Your task to perform on an android device: Go to sound settings Image 0: 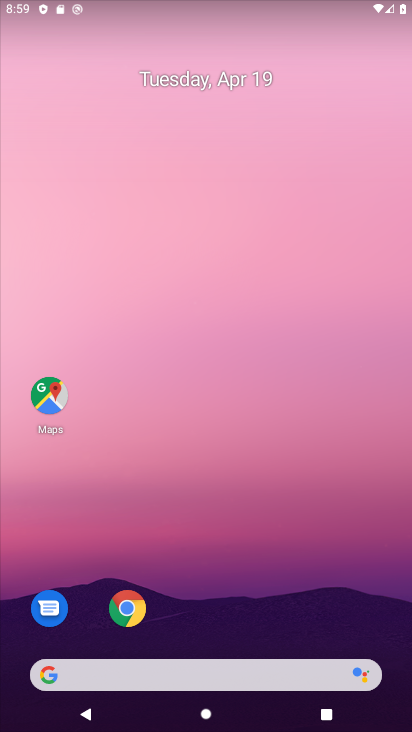
Step 0: drag from (171, 658) to (329, 46)
Your task to perform on an android device: Go to sound settings Image 1: 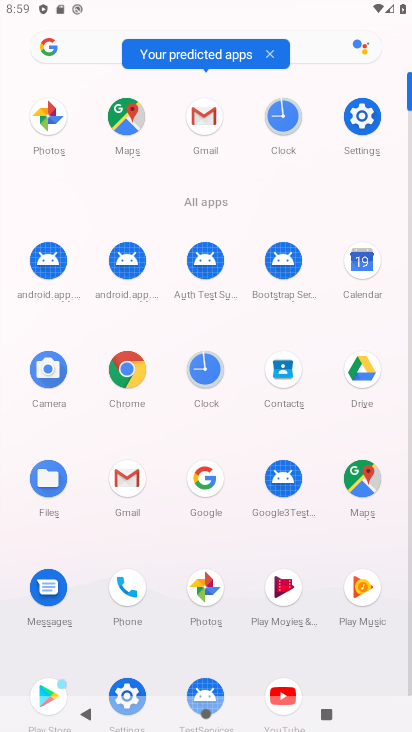
Step 1: click (364, 118)
Your task to perform on an android device: Go to sound settings Image 2: 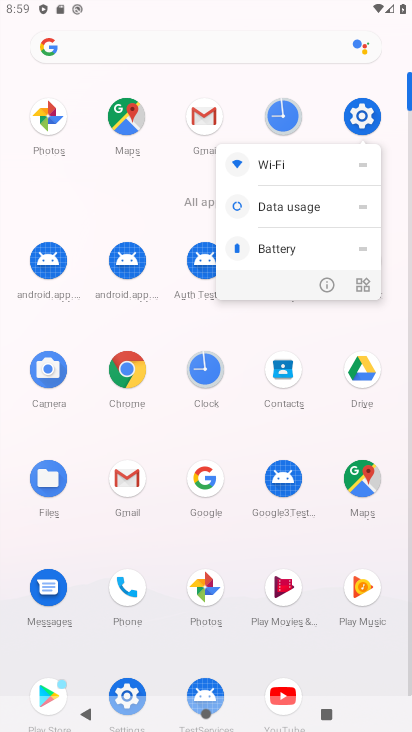
Step 2: click (362, 121)
Your task to perform on an android device: Go to sound settings Image 3: 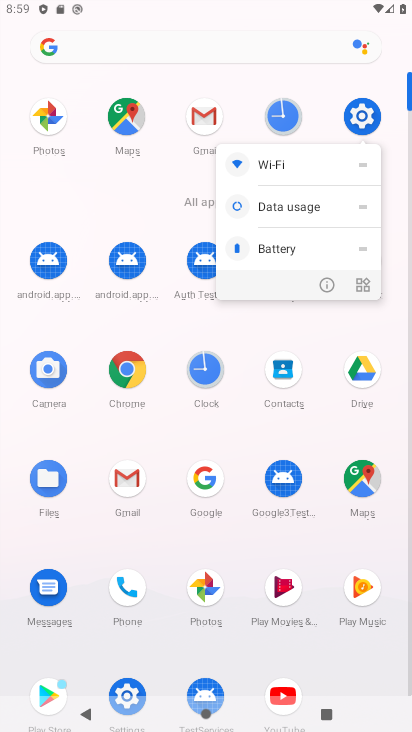
Step 3: click (354, 103)
Your task to perform on an android device: Go to sound settings Image 4: 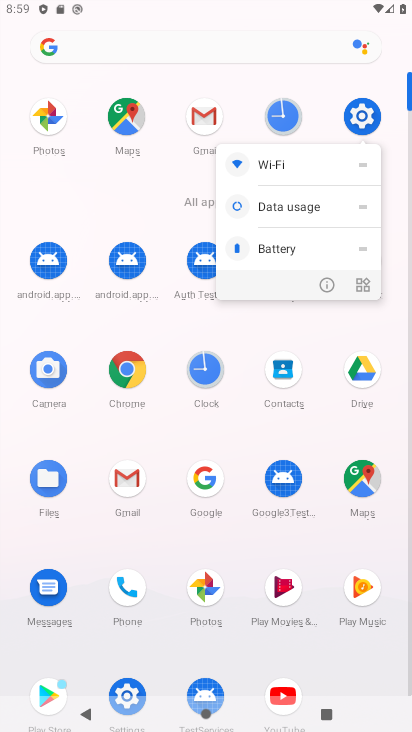
Step 4: click (360, 110)
Your task to perform on an android device: Go to sound settings Image 5: 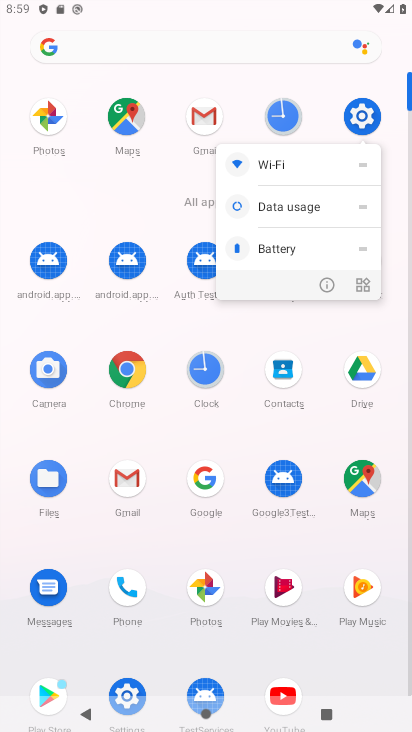
Step 5: click (346, 132)
Your task to perform on an android device: Go to sound settings Image 6: 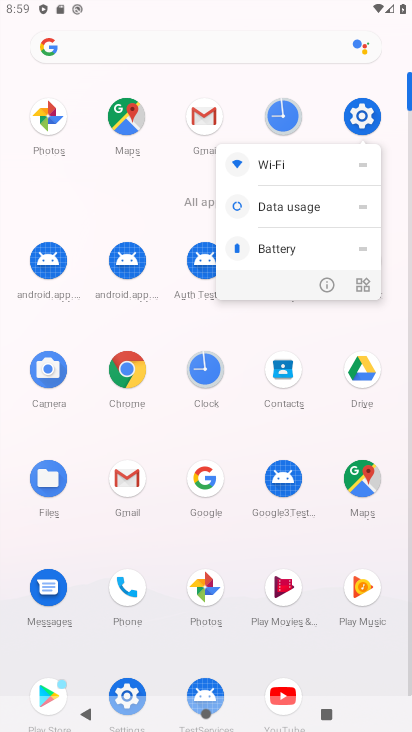
Step 6: click (372, 113)
Your task to perform on an android device: Go to sound settings Image 7: 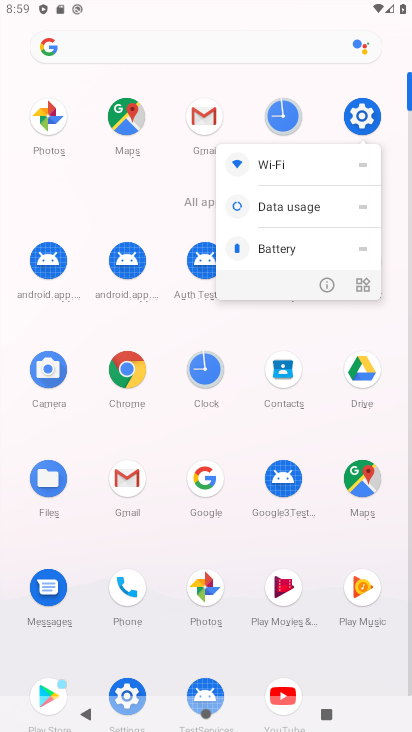
Step 7: click (375, 126)
Your task to perform on an android device: Go to sound settings Image 8: 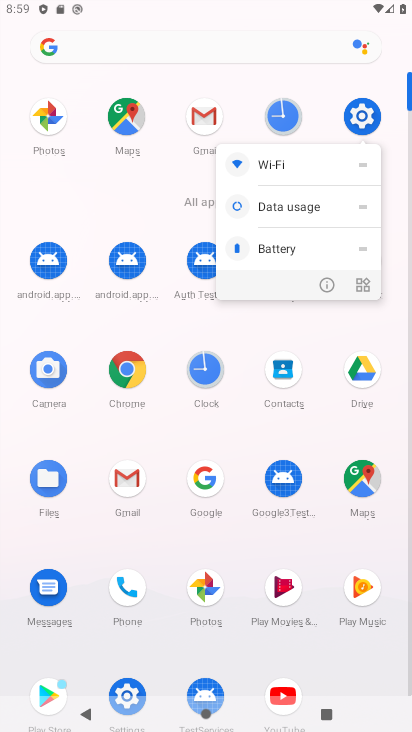
Step 8: click (365, 117)
Your task to perform on an android device: Go to sound settings Image 9: 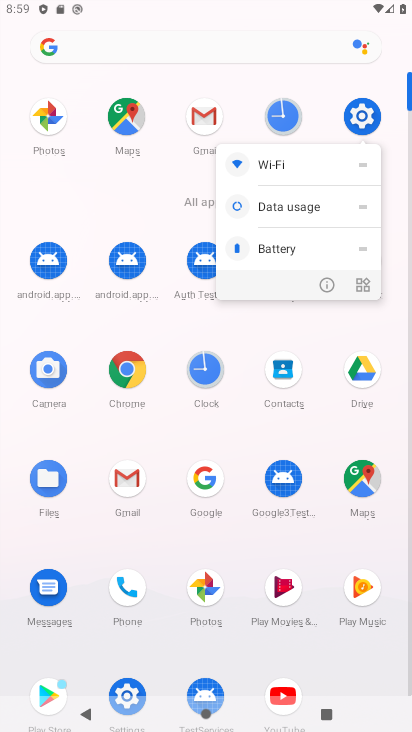
Step 9: click (363, 106)
Your task to perform on an android device: Go to sound settings Image 10: 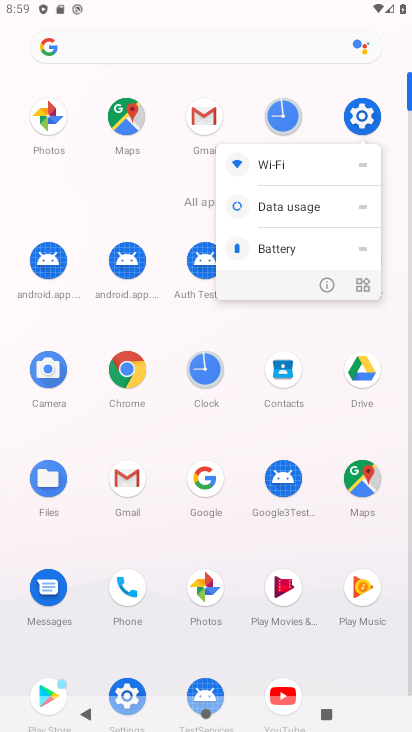
Step 10: click (130, 686)
Your task to perform on an android device: Go to sound settings Image 11: 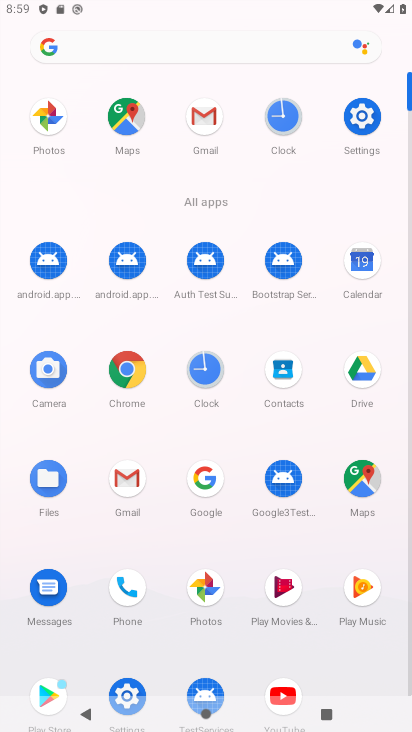
Step 11: click (130, 686)
Your task to perform on an android device: Go to sound settings Image 12: 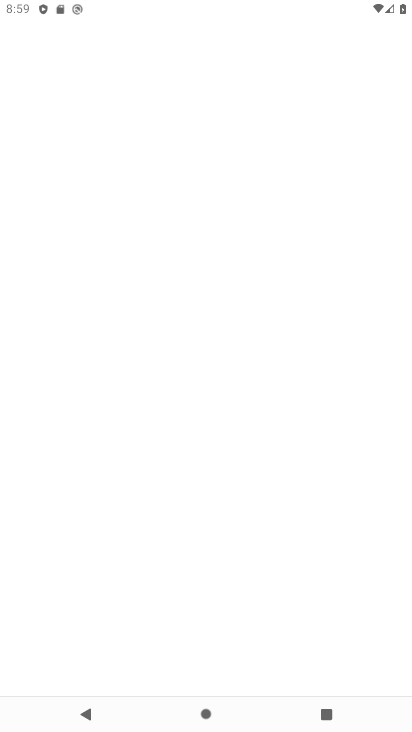
Step 12: click (370, 132)
Your task to perform on an android device: Go to sound settings Image 13: 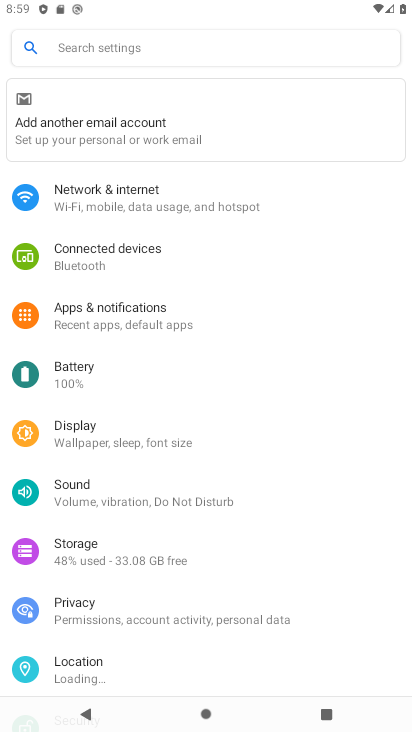
Step 13: click (74, 493)
Your task to perform on an android device: Go to sound settings Image 14: 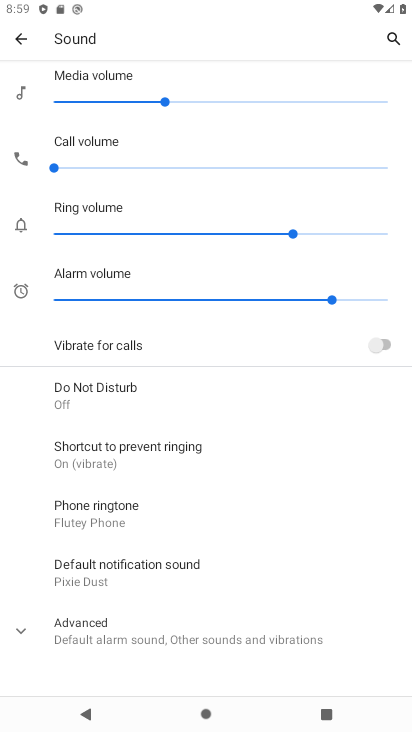
Step 14: task complete